Your task to perform on an android device: Open settings Image 0: 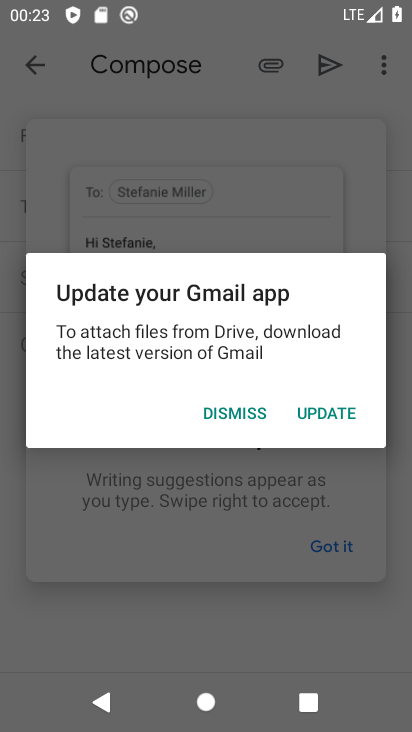
Step 0: press home button
Your task to perform on an android device: Open settings Image 1: 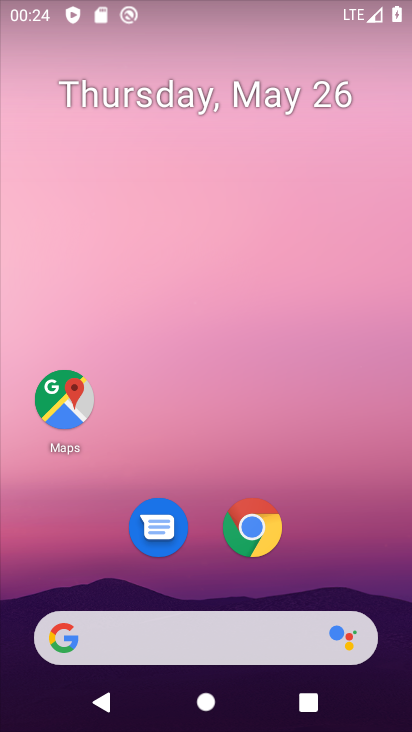
Step 1: drag from (194, 592) to (221, 88)
Your task to perform on an android device: Open settings Image 2: 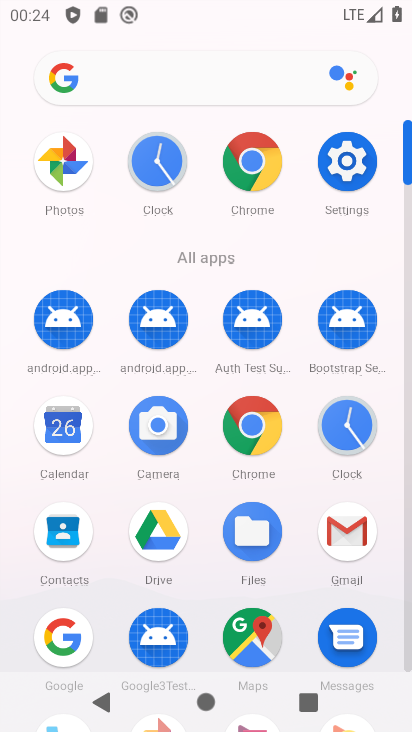
Step 2: click (333, 170)
Your task to perform on an android device: Open settings Image 3: 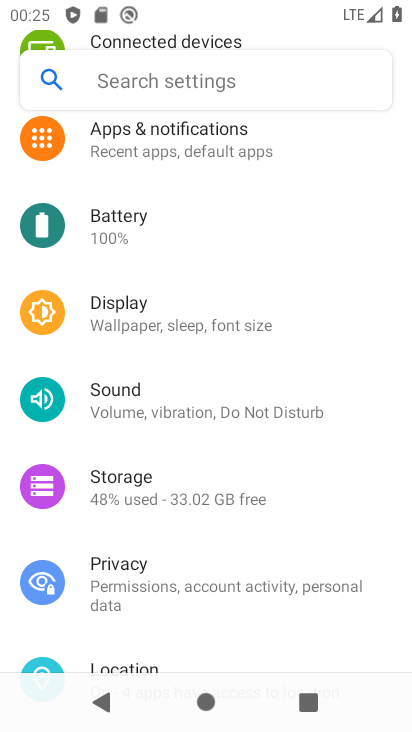
Step 3: task complete